Your task to perform on an android device: Open Android settings Image 0: 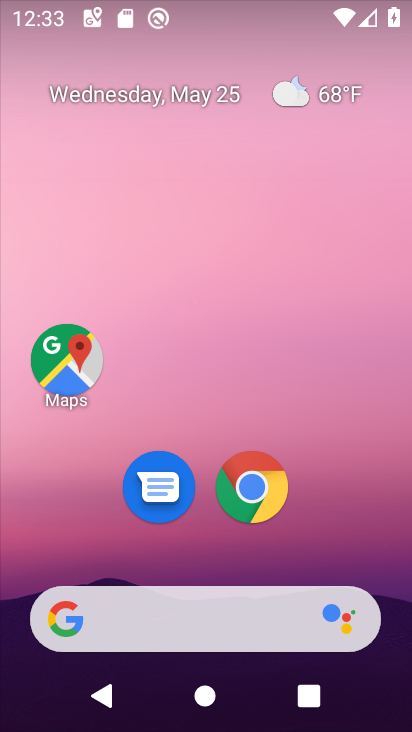
Step 0: drag from (226, 540) to (273, 2)
Your task to perform on an android device: Open Android settings Image 1: 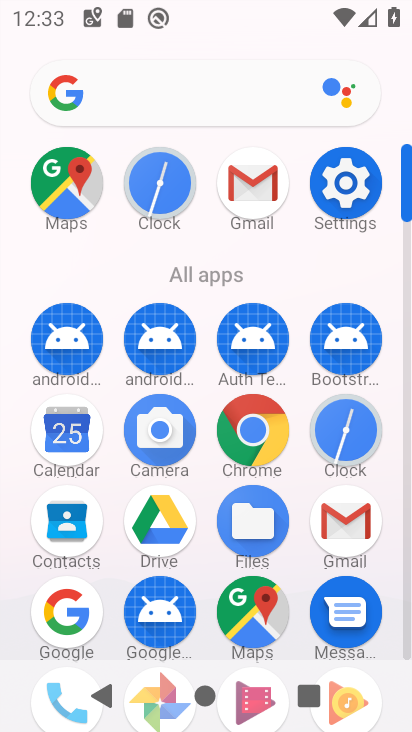
Step 1: click (342, 169)
Your task to perform on an android device: Open Android settings Image 2: 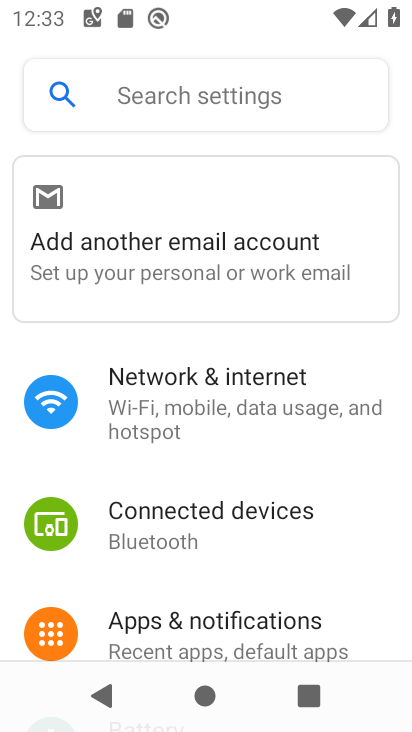
Step 2: drag from (204, 616) to (302, 122)
Your task to perform on an android device: Open Android settings Image 3: 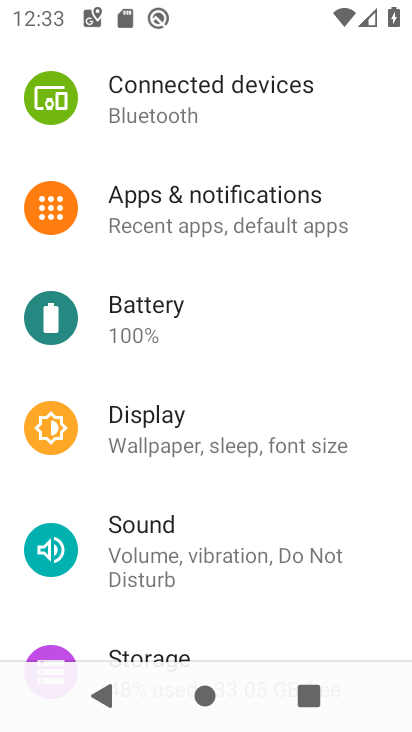
Step 3: drag from (199, 553) to (295, 37)
Your task to perform on an android device: Open Android settings Image 4: 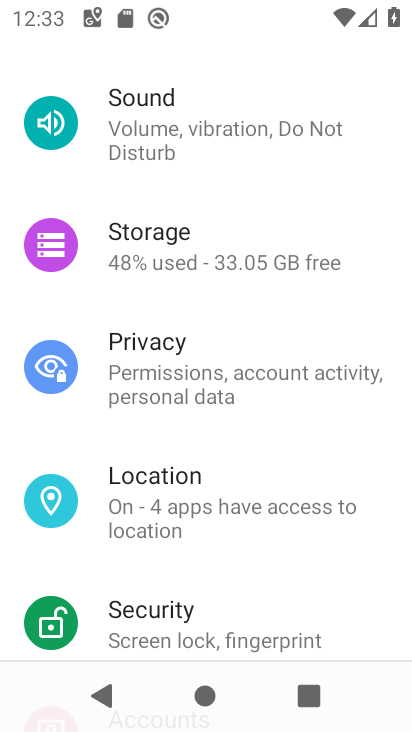
Step 4: drag from (246, 523) to (324, 22)
Your task to perform on an android device: Open Android settings Image 5: 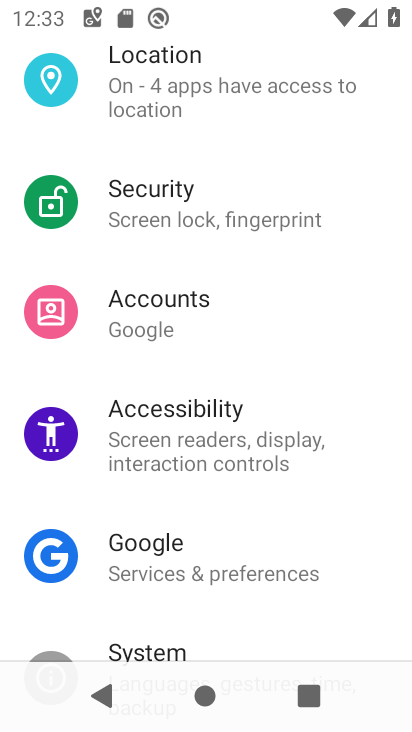
Step 5: drag from (197, 599) to (230, 15)
Your task to perform on an android device: Open Android settings Image 6: 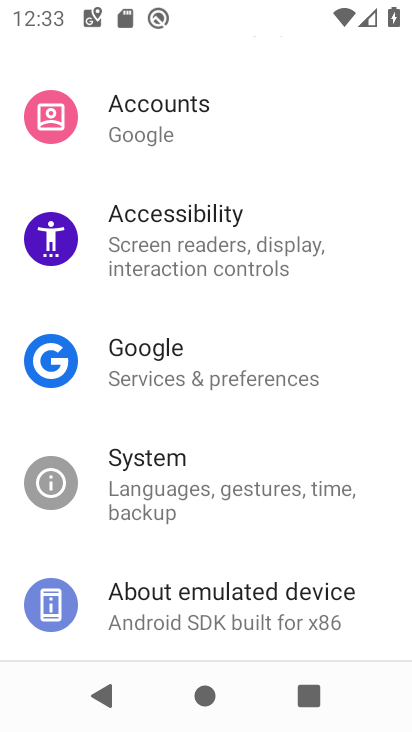
Step 6: click (169, 605)
Your task to perform on an android device: Open Android settings Image 7: 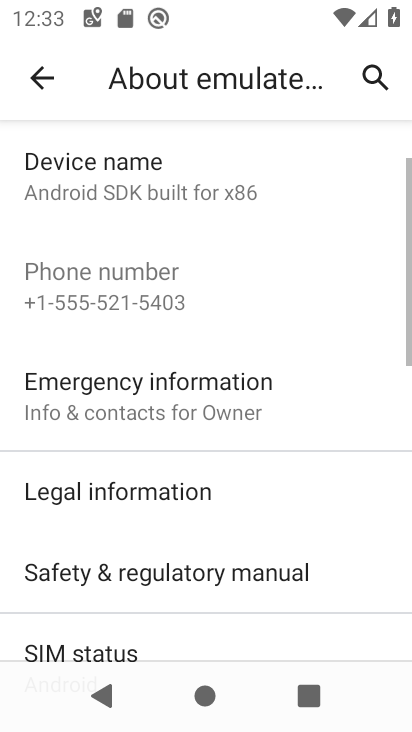
Step 7: task complete